Your task to perform on an android device: Open the web browser Image 0: 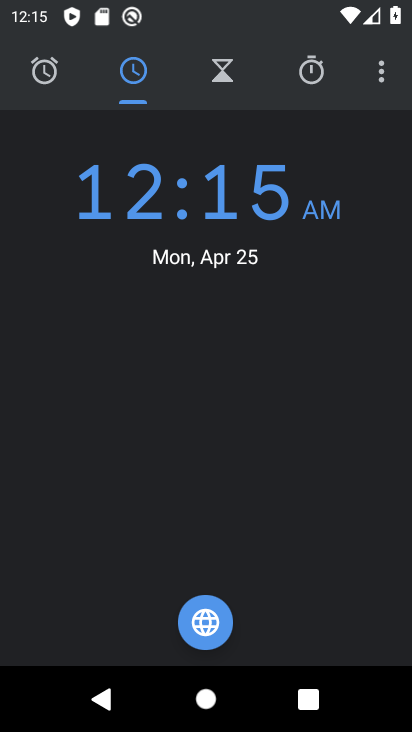
Step 0: press back button
Your task to perform on an android device: Open the web browser Image 1: 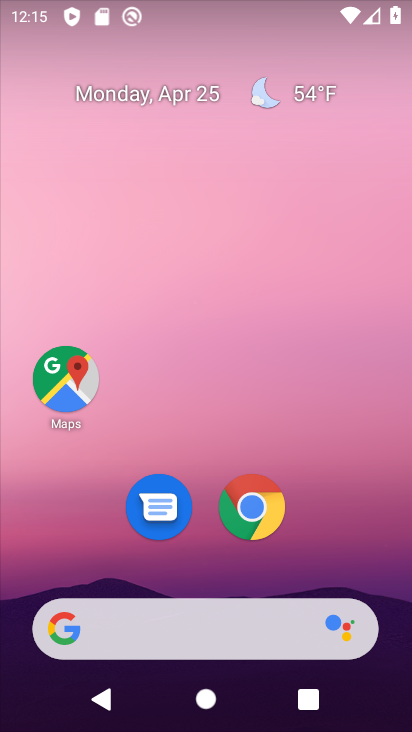
Step 1: drag from (392, 541) to (328, 23)
Your task to perform on an android device: Open the web browser Image 2: 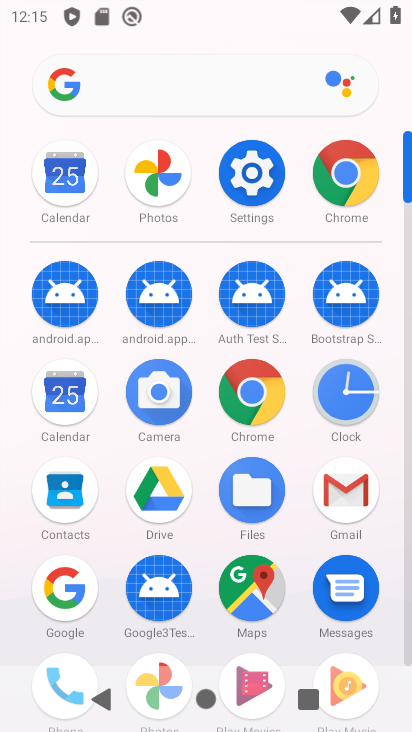
Step 2: drag from (9, 524) to (9, 334)
Your task to perform on an android device: Open the web browser Image 3: 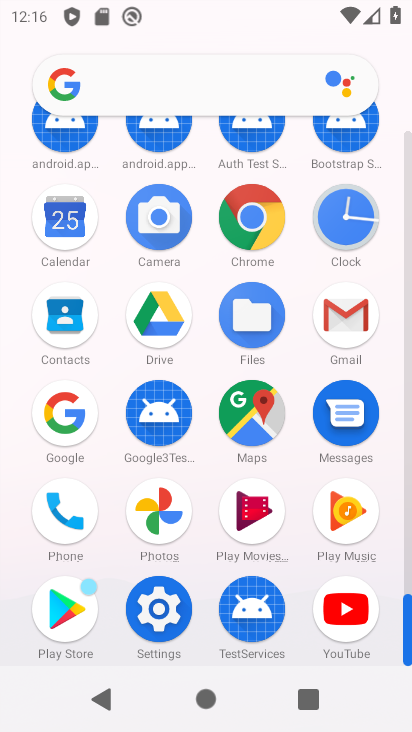
Step 3: click (258, 209)
Your task to perform on an android device: Open the web browser Image 4: 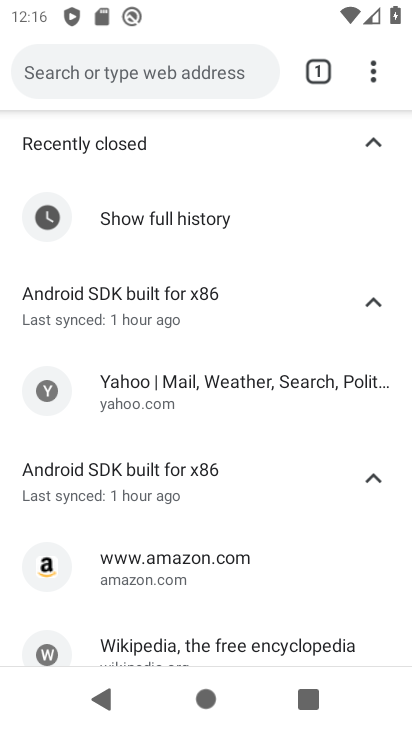
Step 4: task complete